Your task to perform on an android device: open chrome and create a bookmark for the current page Image 0: 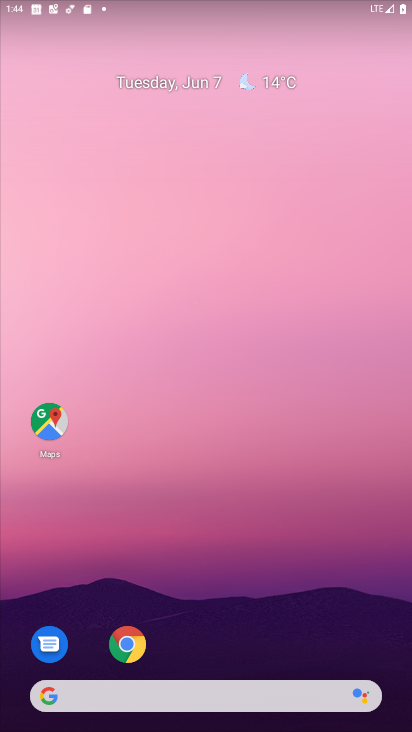
Step 0: click (134, 644)
Your task to perform on an android device: open chrome and create a bookmark for the current page Image 1: 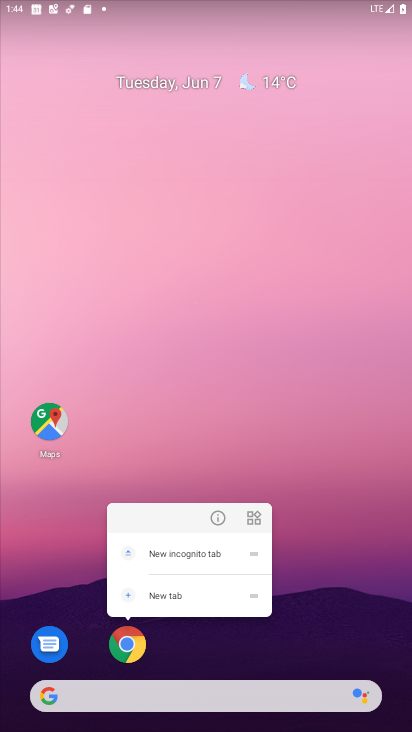
Step 1: click (134, 643)
Your task to perform on an android device: open chrome and create a bookmark for the current page Image 2: 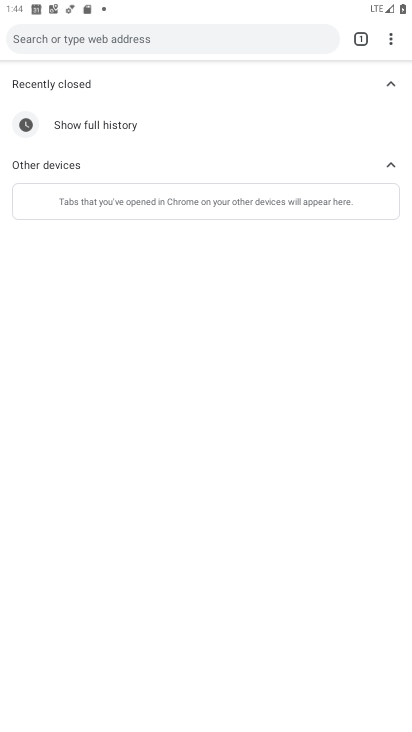
Step 2: click (385, 39)
Your task to perform on an android device: open chrome and create a bookmark for the current page Image 3: 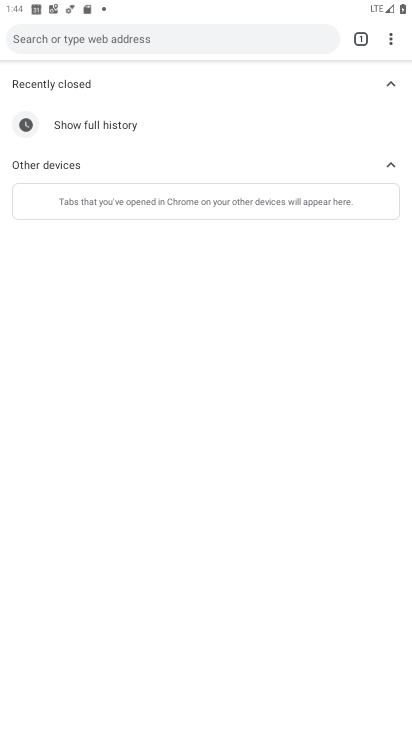
Step 3: click (385, 39)
Your task to perform on an android device: open chrome and create a bookmark for the current page Image 4: 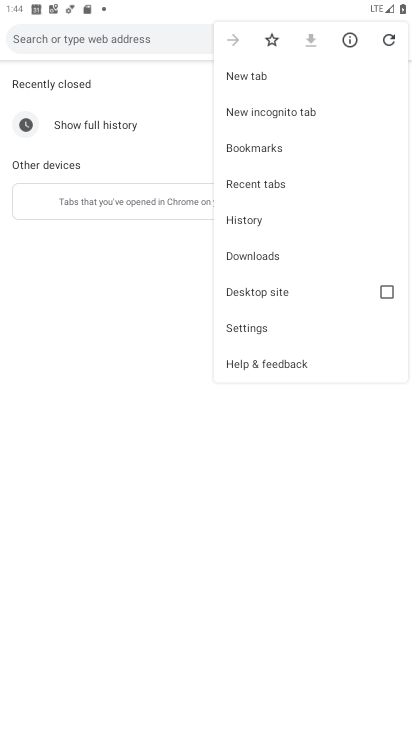
Step 4: click (259, 35)
Your task to perform on an android device: open chrome and create a bookmark for the current page Image 5: 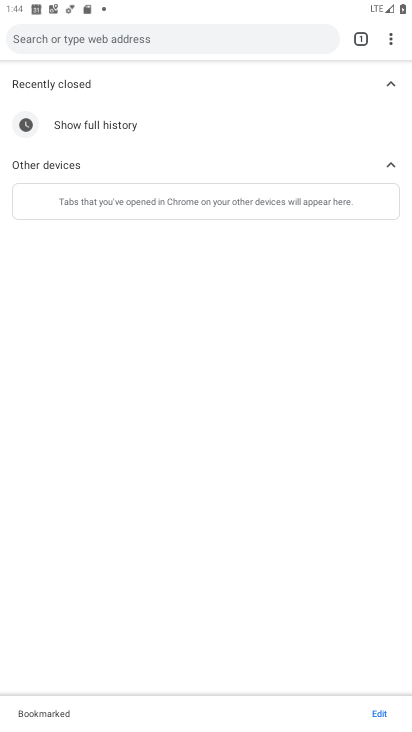
Step 5: task complete